Your task to perform on an android device: change notification settings in the gmail app Image 0: 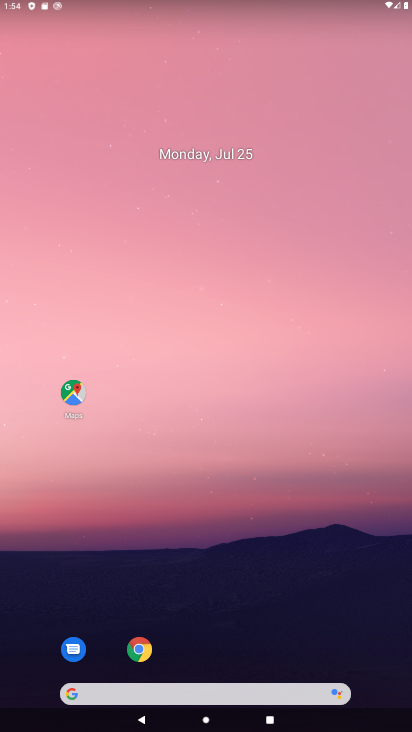
Step 0: drag from (382, 674) to (337, 202)
Your task to perform on an android device: change notification settings in the gmail app Image 1: 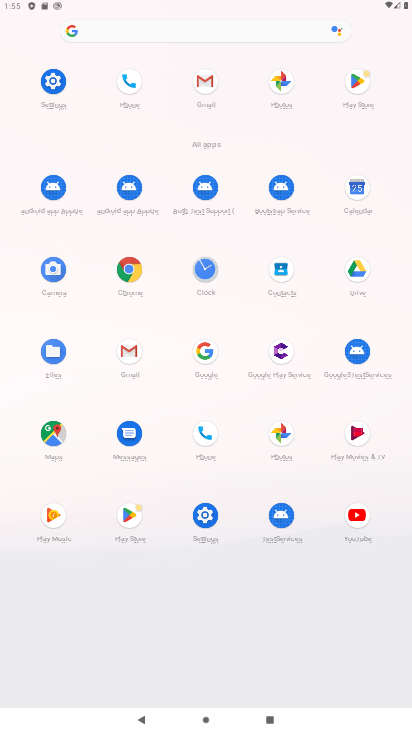
Step 1: click (130, 353)
Your task to perform on an android device: change notification settings in the gmail app Image 2: 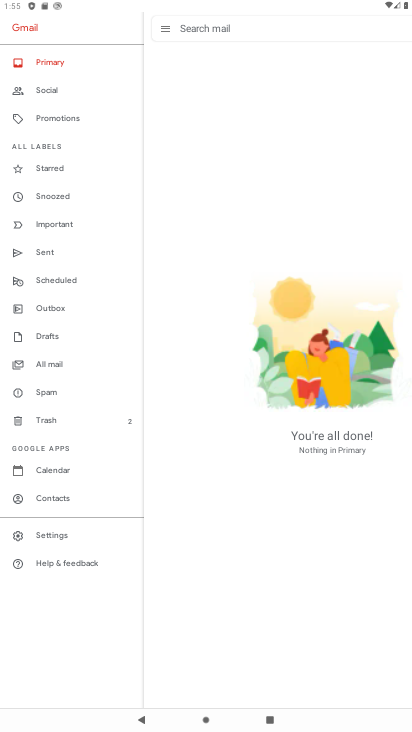
Step 2: click (49, 528)
Your task to perform on an android device: change notification settings in the gmail app Image 3: 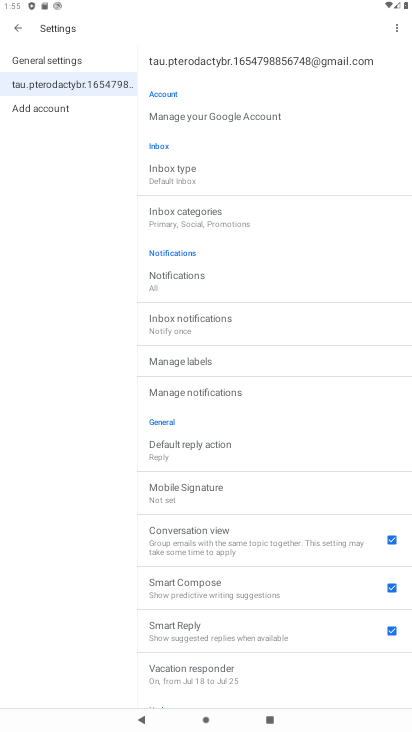
Step 3: click (186, 389)
Your task to perform on an android device: change notification settings in the gmail app Image 4: 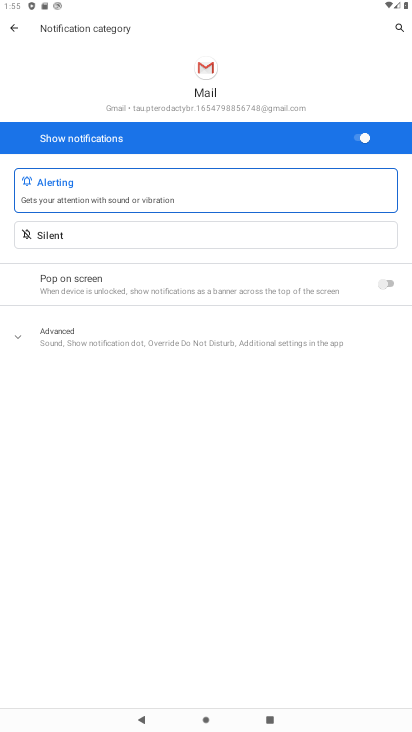
Step 4: click (359, 138)
Your task to perform on an android device: change notification settings in the gmail app Image 5: 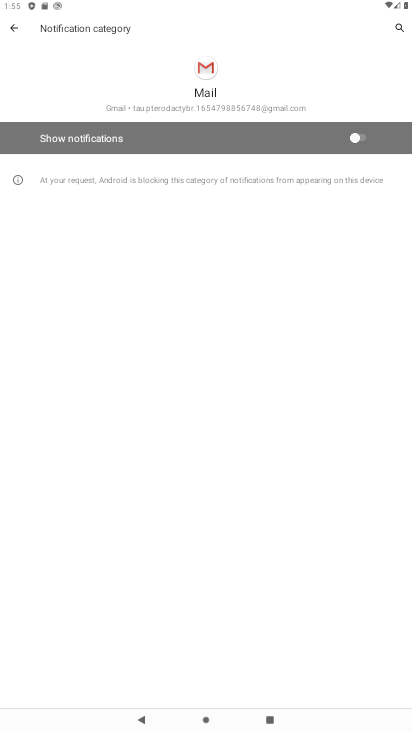
Step 5: task complete